Your task to perform on an android device: turn on location history Image 0: 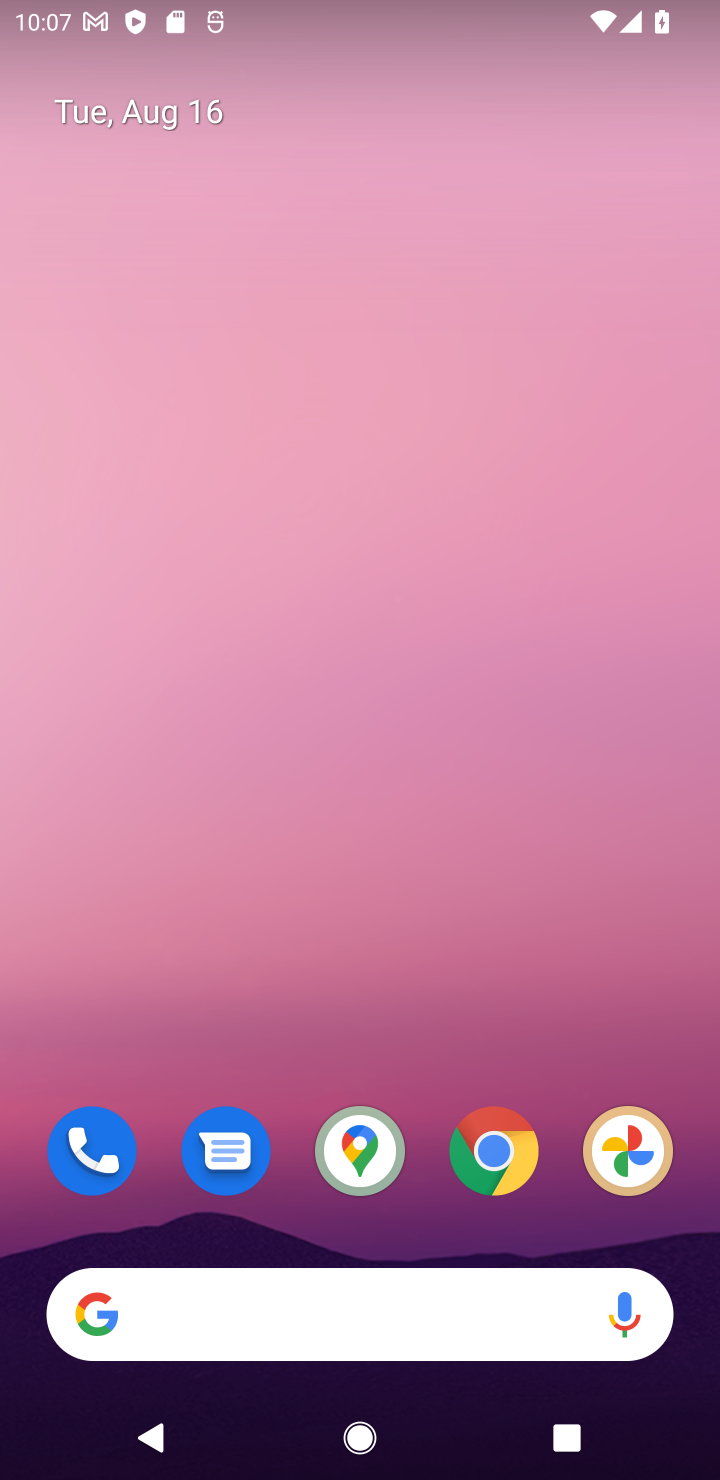
Step 0: press home button
Your task to perform on an android device: turn on location history Image 1: 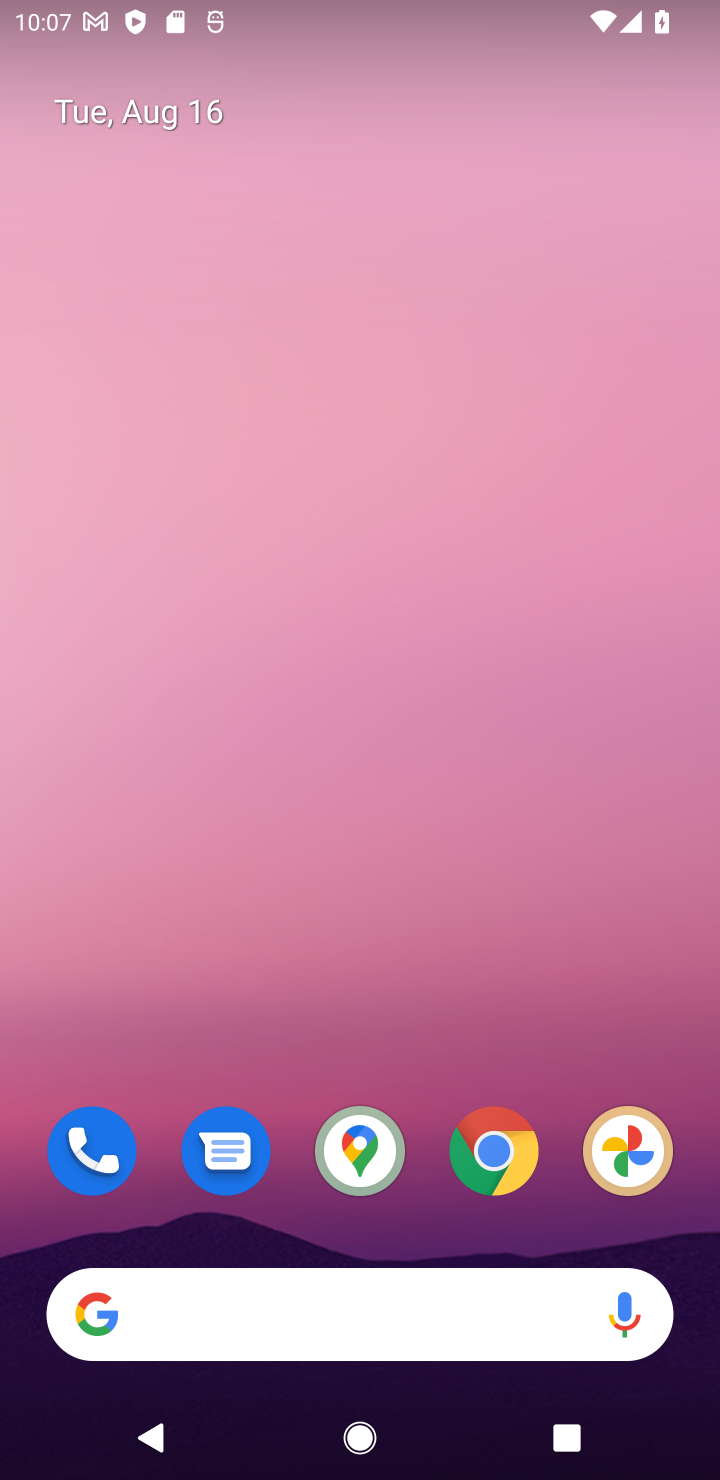
Step 1: drag from (285, 1011) to (194, 319)
Your task to perform on an android device: turn on location history Image 2: 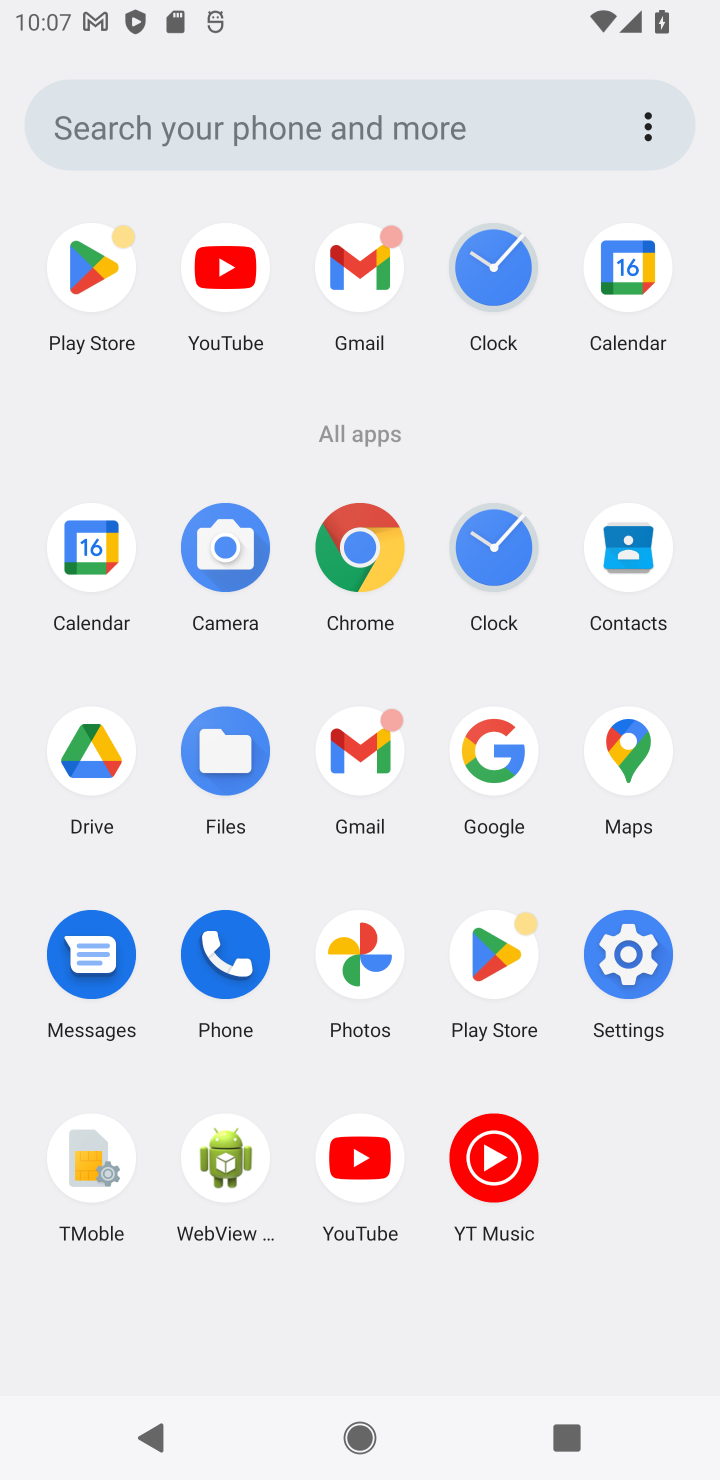
Step 2: click (627, 956)
Your task to perform on an android device: turn on location history Image 3: 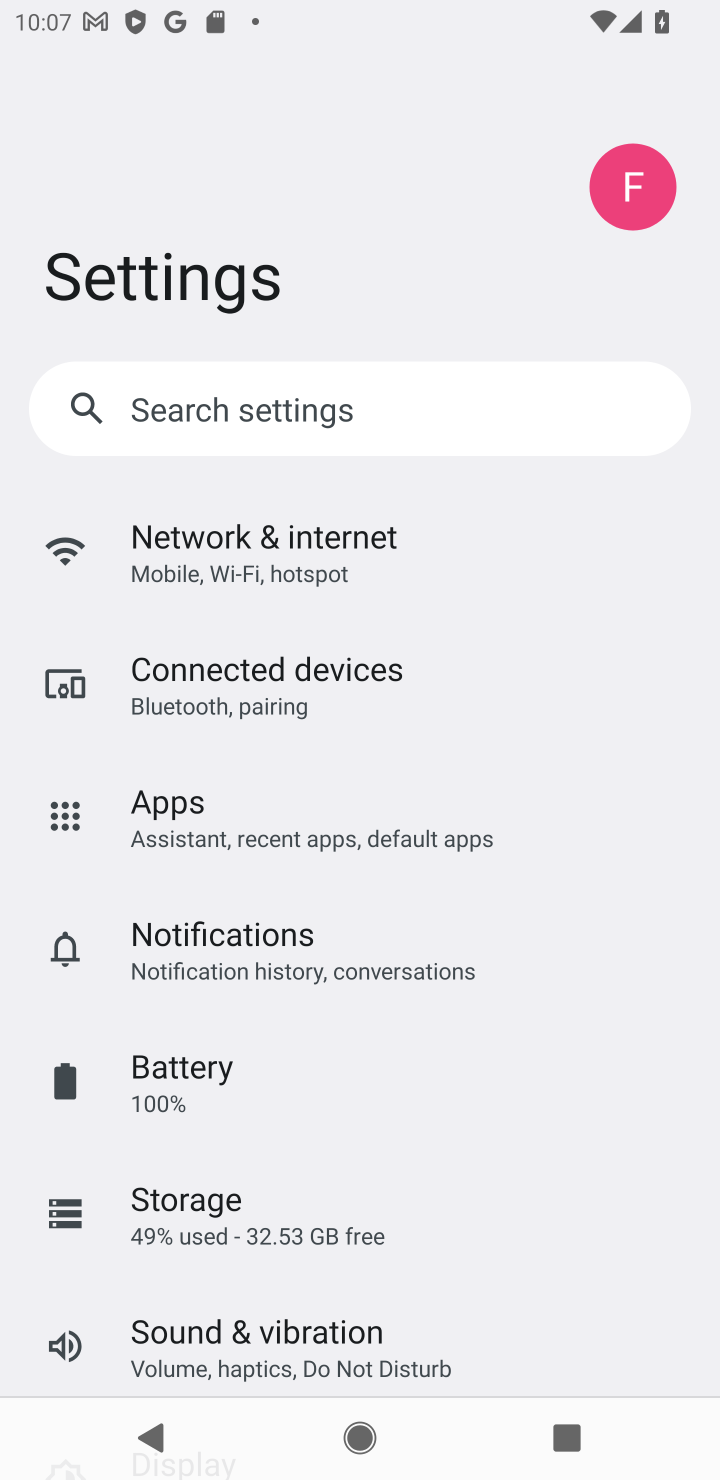
Step 3: drag from (421, 1123) to (399, 696)
Your task to perform on an android device: turn on location history Image 4: 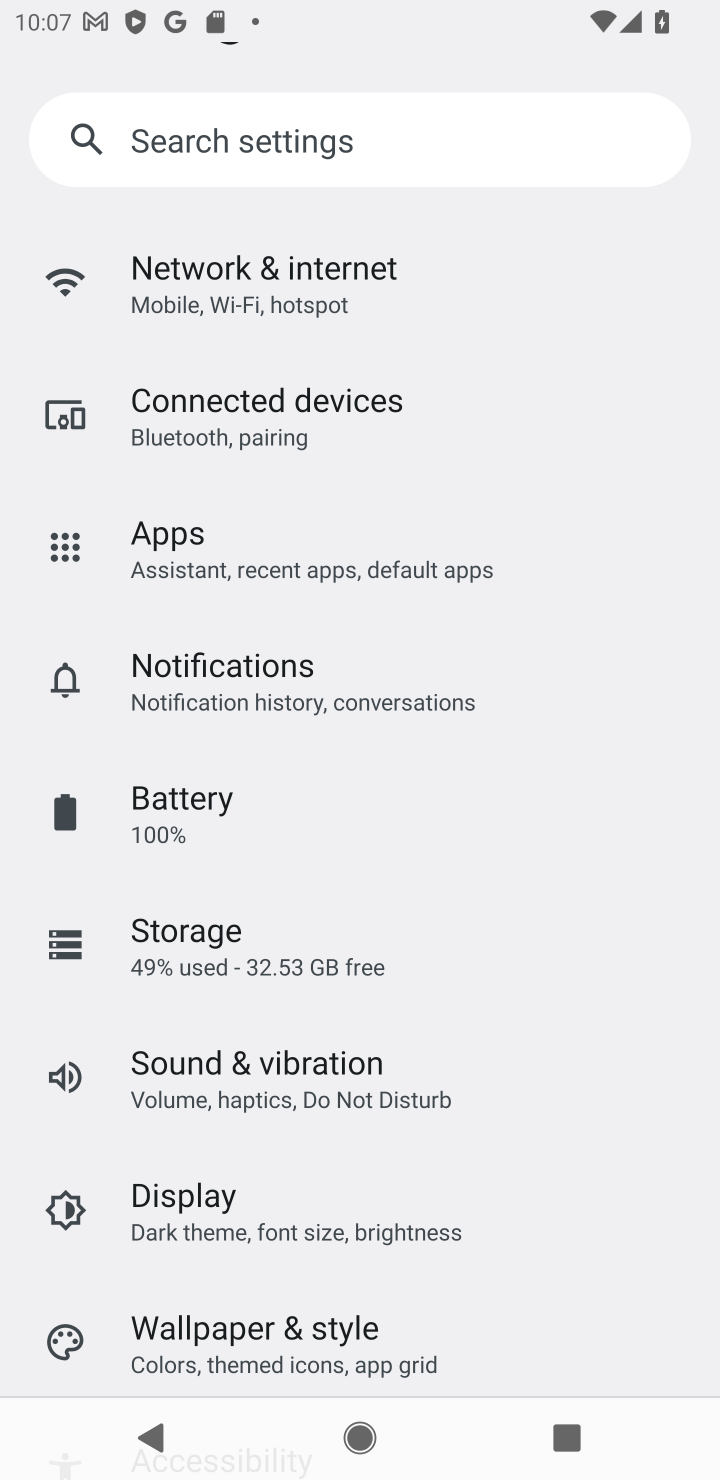
Step 4: drag from (514, 1226) to (474, 756)
Your task to perform on an android device: turn on location history Image 5: 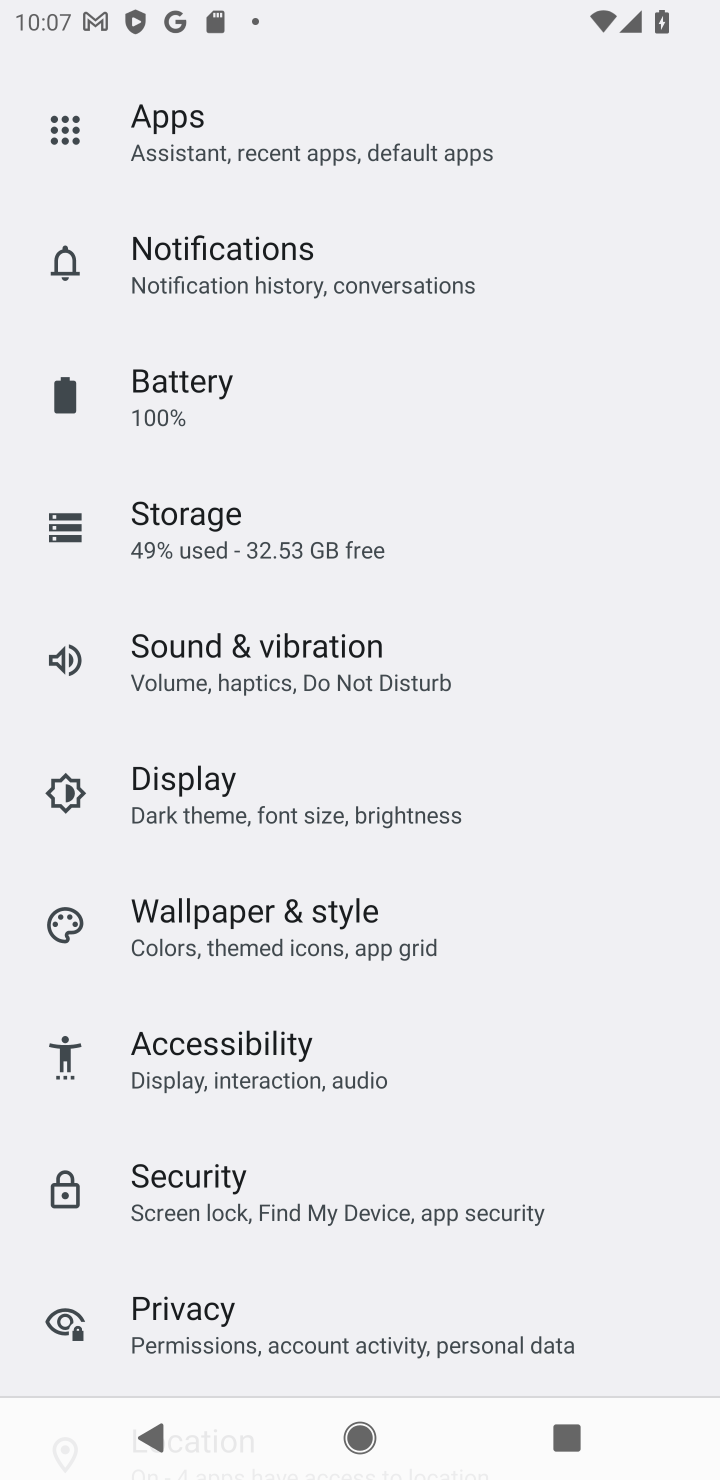
Step 5: drag from (398, 1237) to (302, 707)
Your task to perform on an android device: turn on location history Image 6: 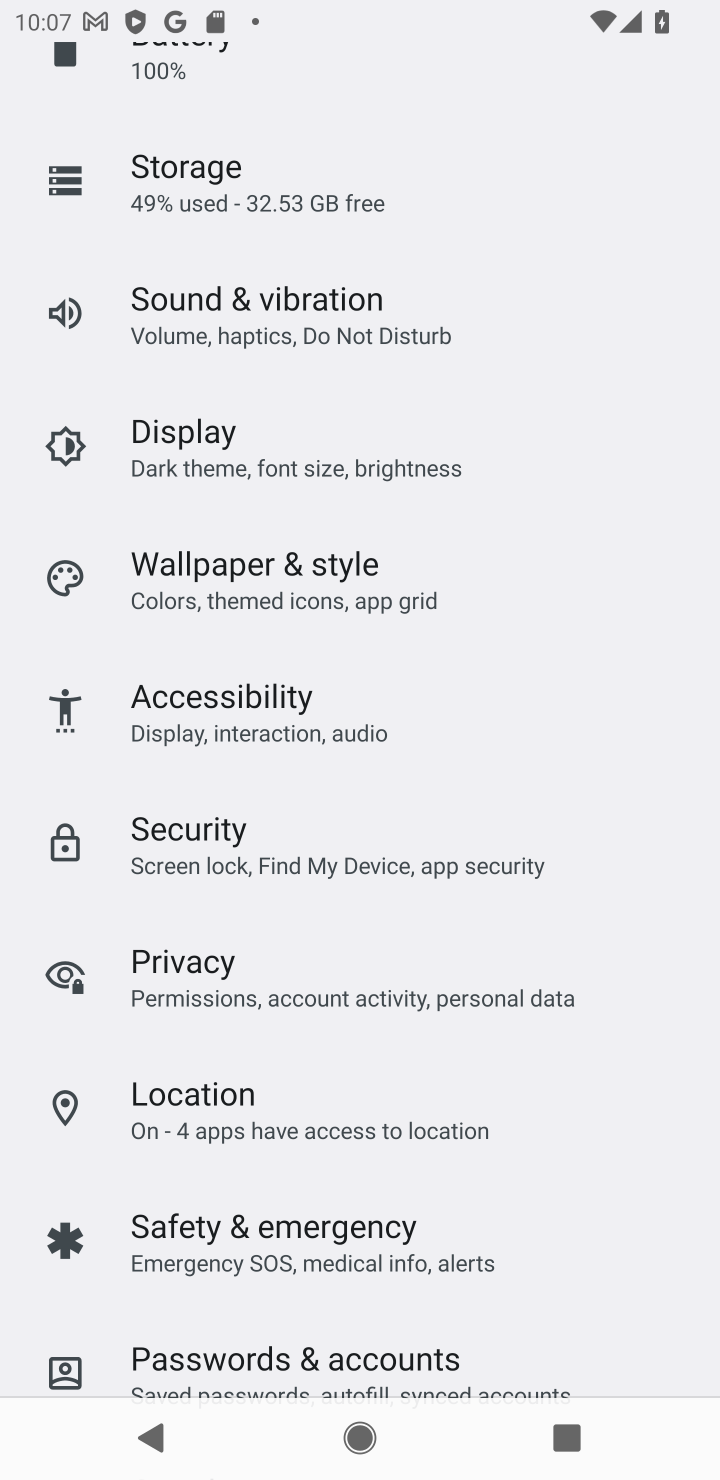
Step 6: click (187, 1084)
Your task to perform on an android device: turn on location history Image 7: 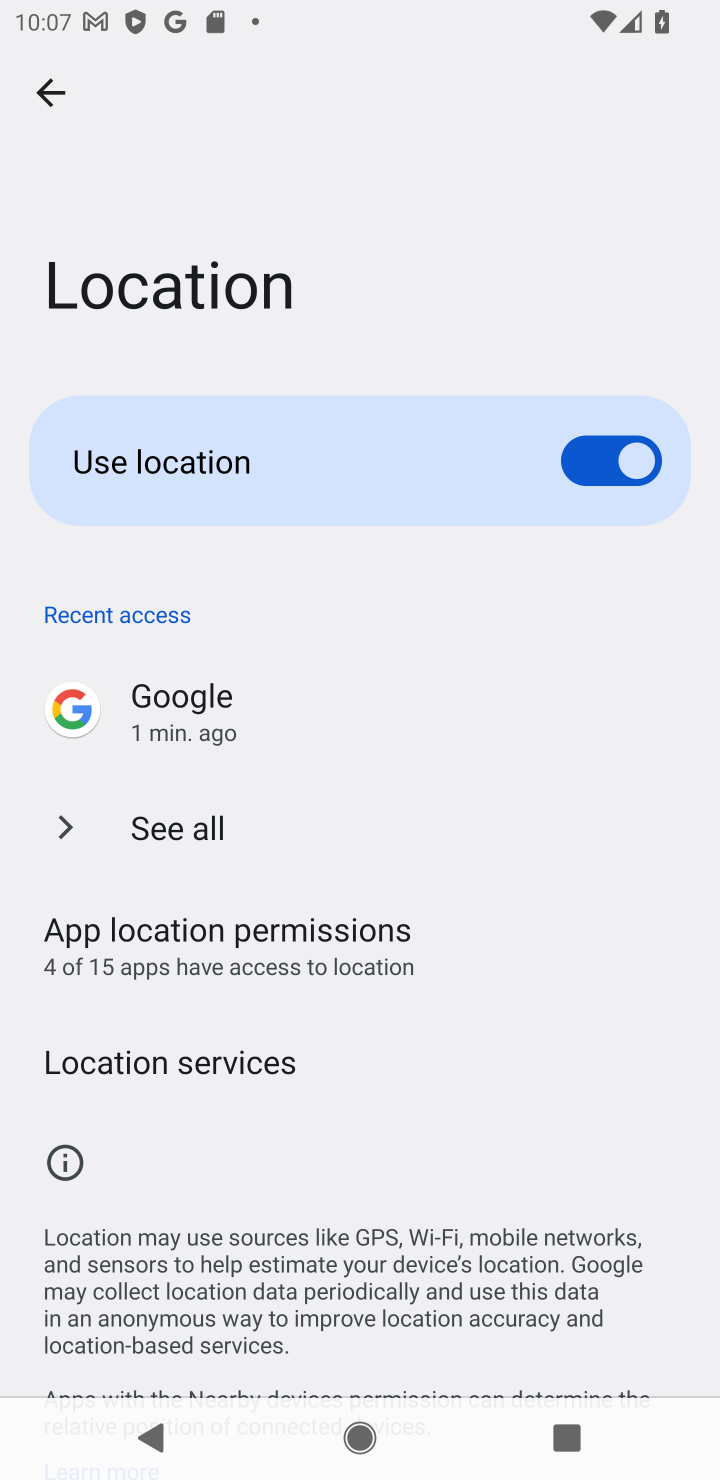
Step 7: click (227, 1067)
Your task to perform on an android device: turn on location history Image 8: 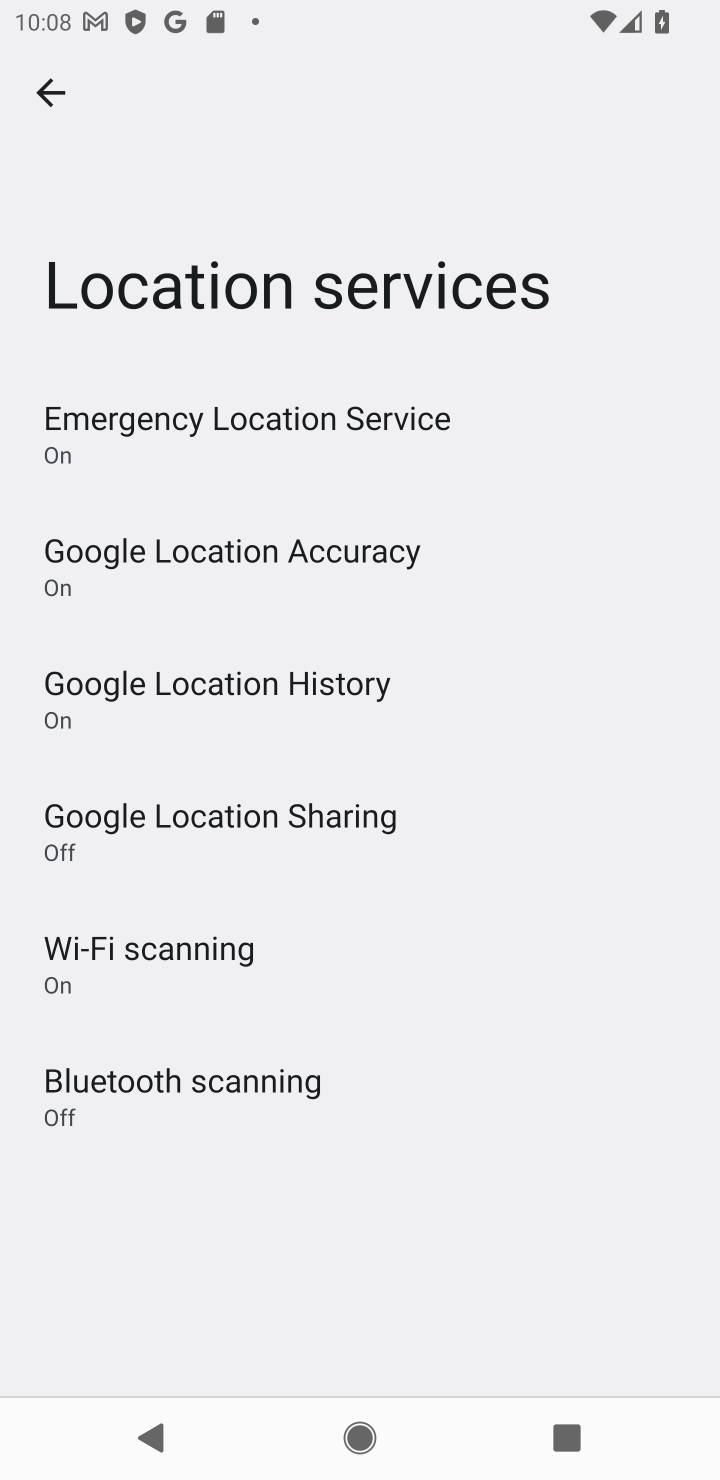
Step 8: click (188, 689)
Your task to perform on an android device: turn on location history Image 9: 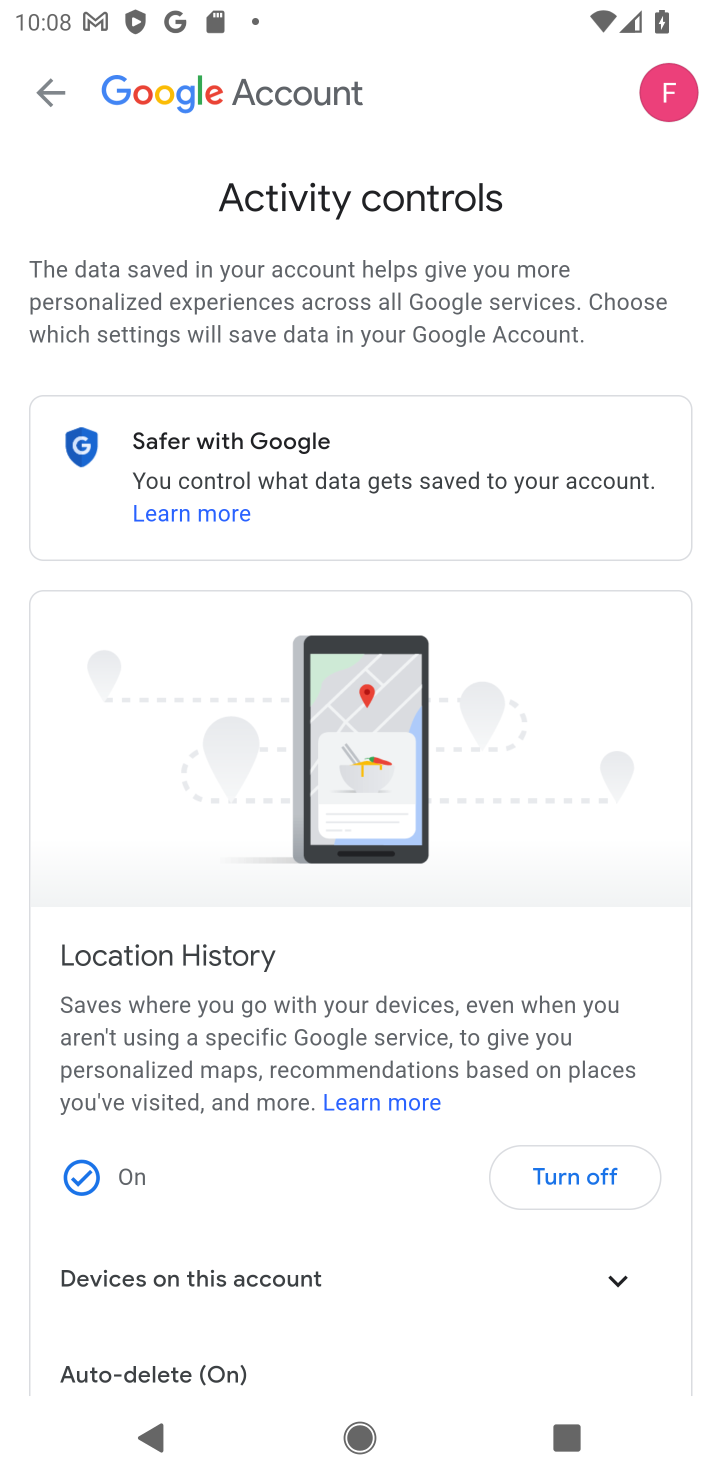
Step 9: task complete